Your task to perform on an android device: Open the web browser Image 0: 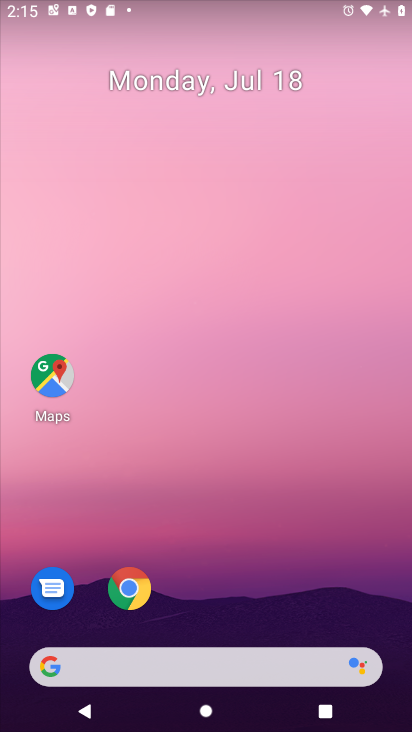
Step 0: drag from (202, 681) to (239, 207)
Your task to perform on an android device: Open the web browser Image 1: 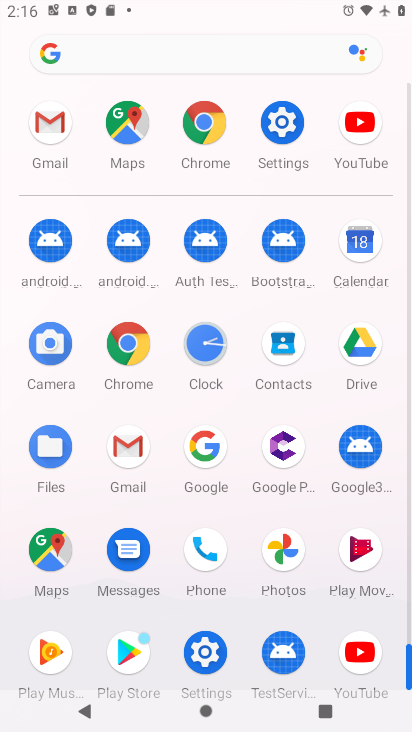
Step 1: click (136, 359)
Your task to perform on an android device: Open the web browser Image 2: 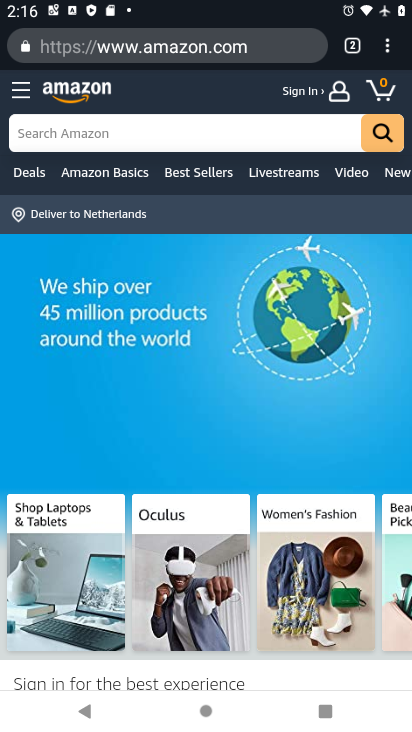
Step 2: task complete